Your task to perform on an android device: toggle notifications settings in the gmail app Image 0: 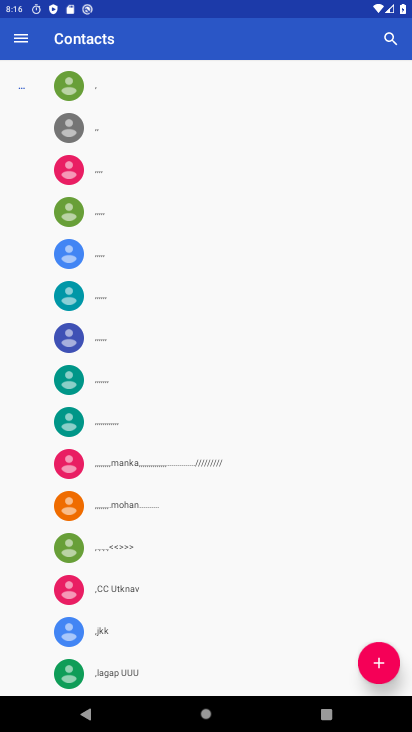
Step 0: press home button
Your task to perform on an android device: toggle notifications settings in the gmail app Image 1: 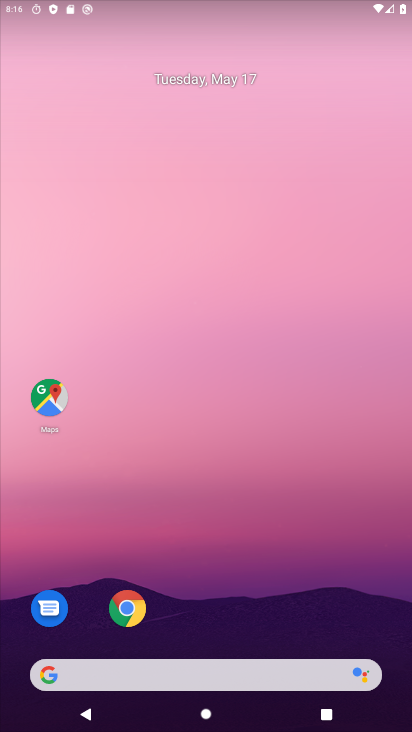
Step 1: drag from (358, 537) to (333, 284)
Your task to perform on an android device: toggle notifications settings in the gmail app Image 2: 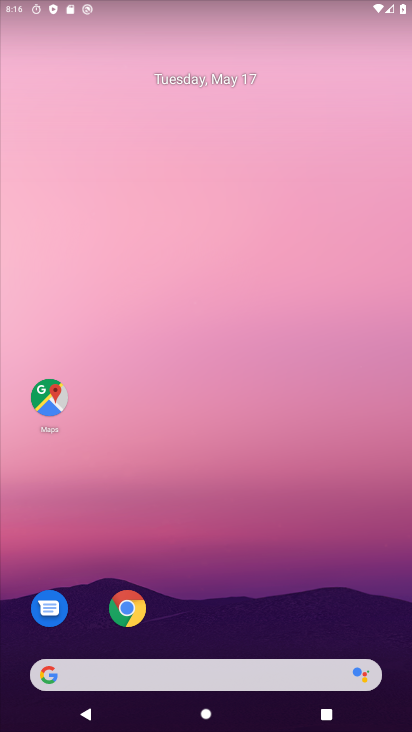
Step 2: drag from (348, 591) to (332, 249)
Your task to perform on an android device: toggle notifications settings in the gmail app Image 3: 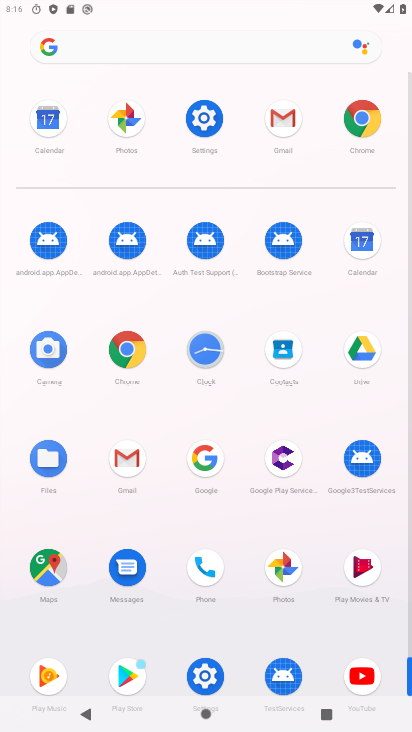
Step 3: click (123, 470)
Your task to perform on an android device: toggle notifications settings in the gmail app Image 4: 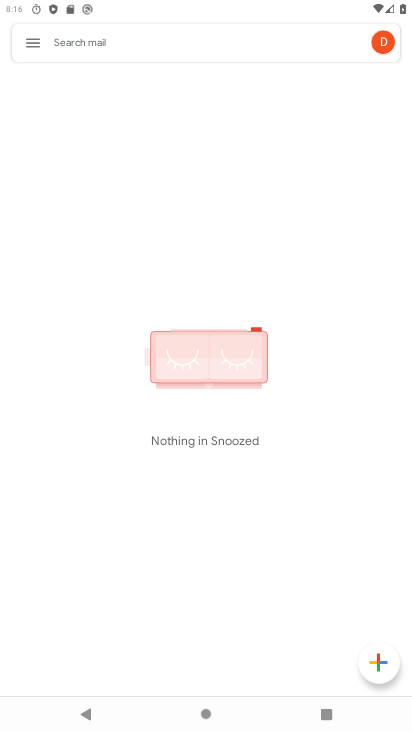
Step 4: click (27, 43)
Your task to perform on an android device: toggle notifications settings in the gmail app Image 5: 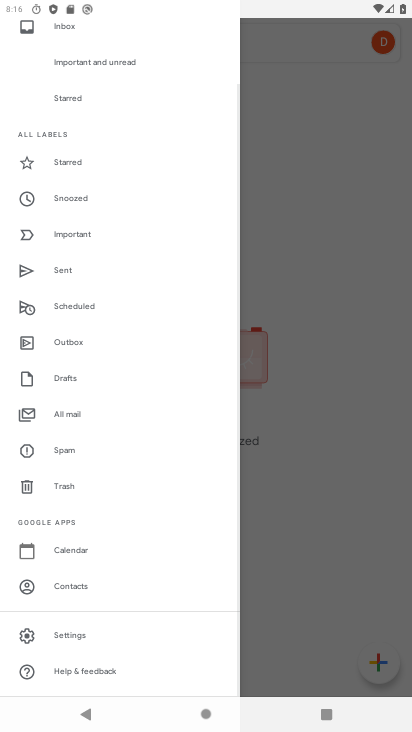
Step 5: click (88, 641)
Your task to perform on an android device: toggle notifications settings in the gmail app Image 6: 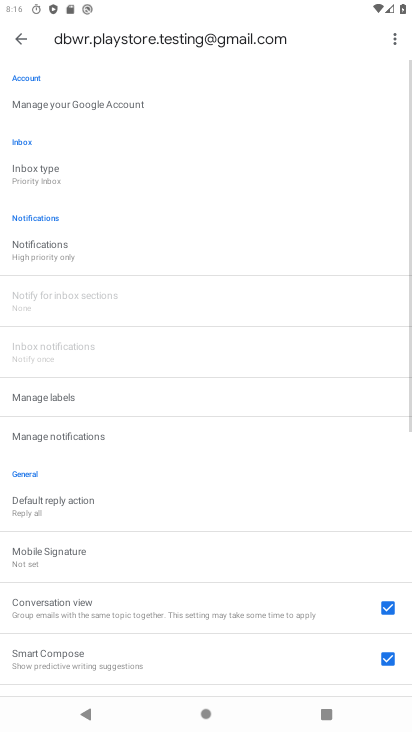
Step 6: click (88, 249)
Your task to perform on an android device: toggle notifications settings in the gmail app Image 7: 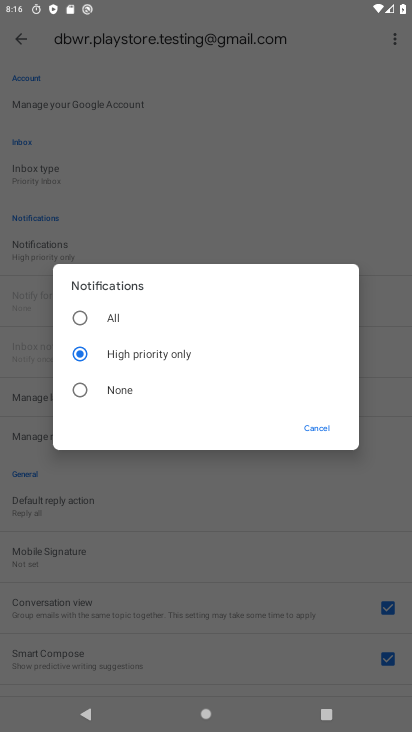
Step 7: click (99, 317)
Your task to perform on an android device: toggle notifications settings in the gmail app Image 8: 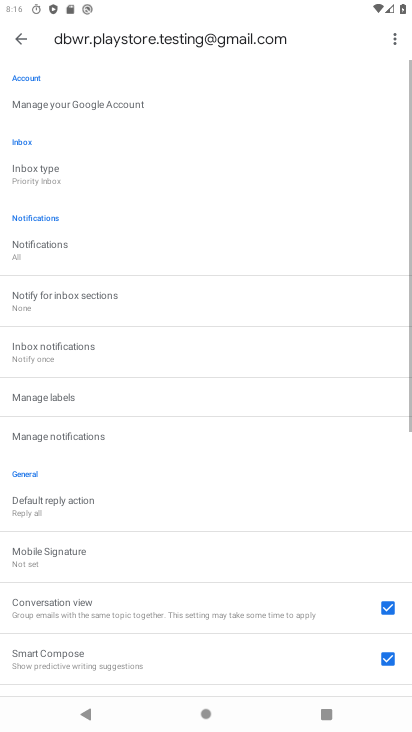
Step 8: task complete